Your task to perform on an android device: Go to Maps Image 0: 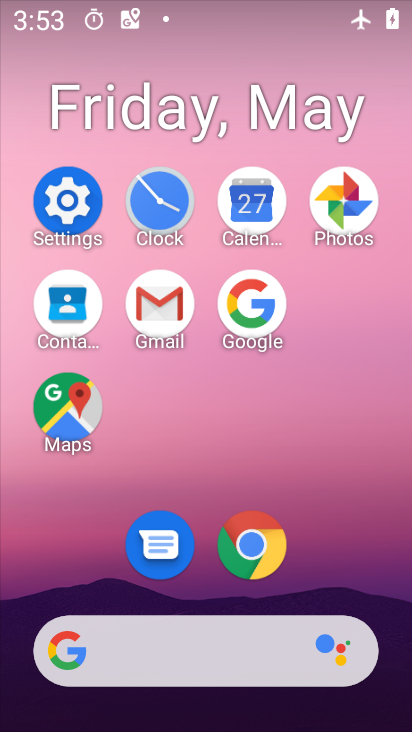
Step 0: click (77, 406)
Your task to perform on an android device: Go to Maps Image 1: 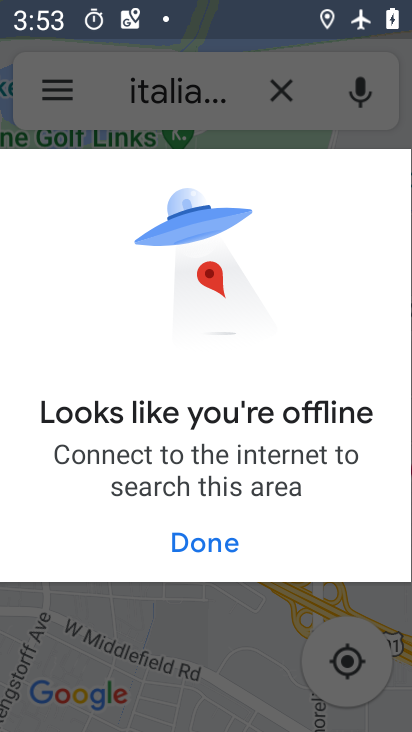
Step 1: task complete